Your task to perform on an android device: find photos in the google photos app Image 0: 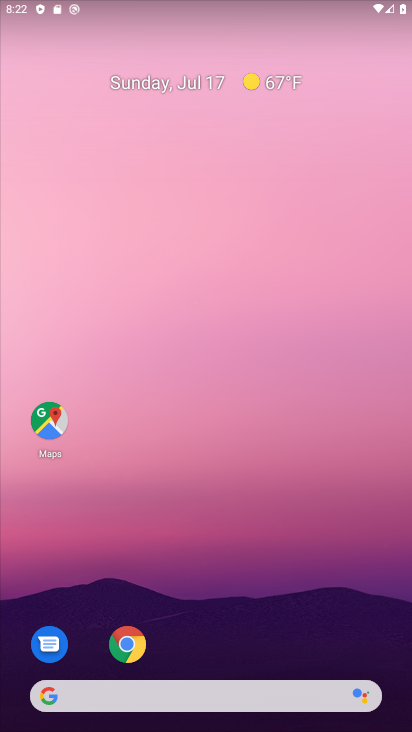
Step 0: drag from (256, 242) to (214, 51)
Your task to perform on an android device: find photos in the google photos app Image 1: 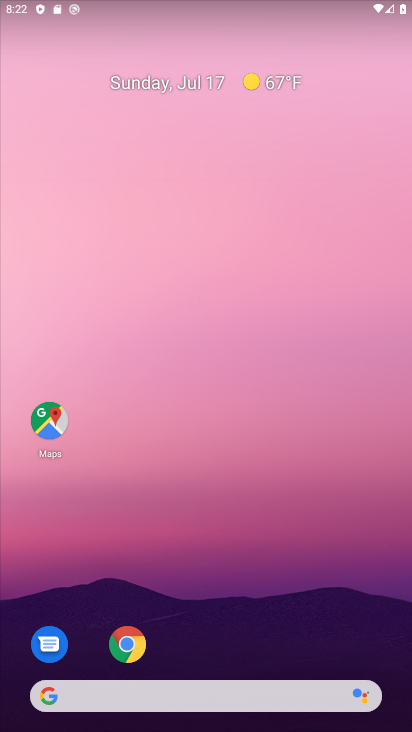
Step 1: drag from (229, 555) to (222, 107)
Your task to perform on an android device: find photos in the google photos app Image 2: 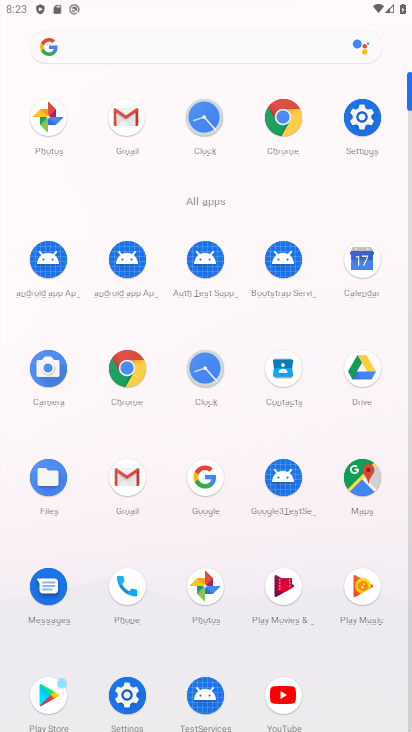
Step 2: click (48, 117)
Your task to perform on an android device: find photos in the google photos app Image 3: 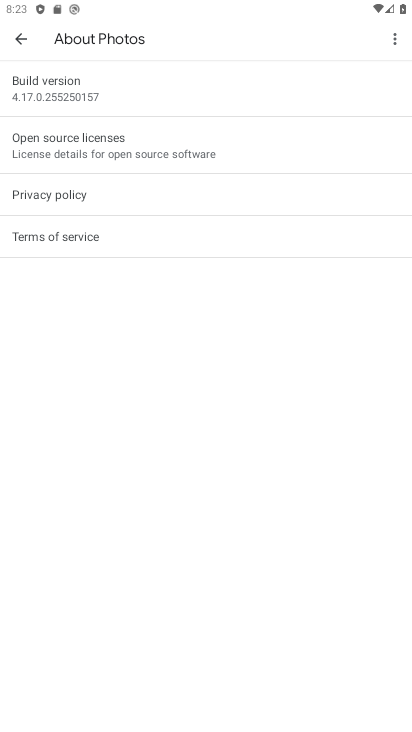
Step 3: click (18, 33)
Your task to perform on an android device: find photos in the google photos app Image 4: 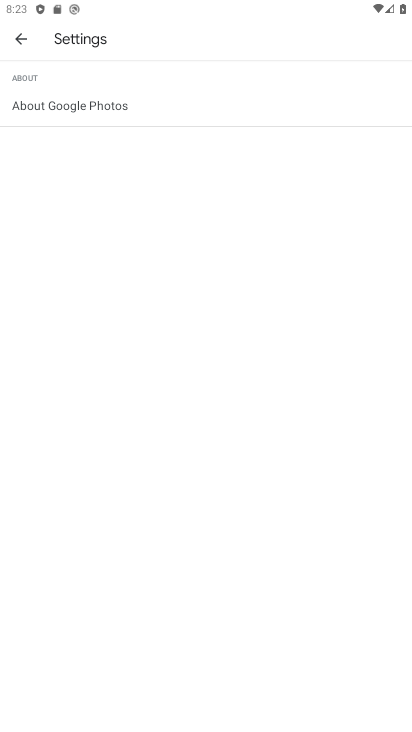
Step 4: click (11, 37)
Your task to perform on an android device: find photos in the google photos app Image 5: 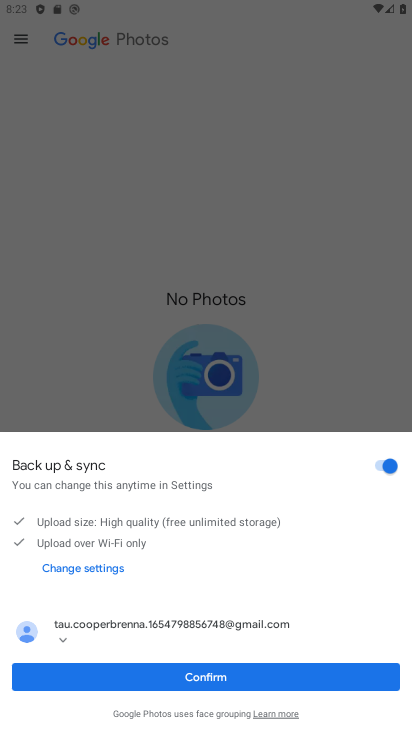
Step 5: click (203, 681)
Your task to perform on an android device: find photos in the google photos app Image 6: 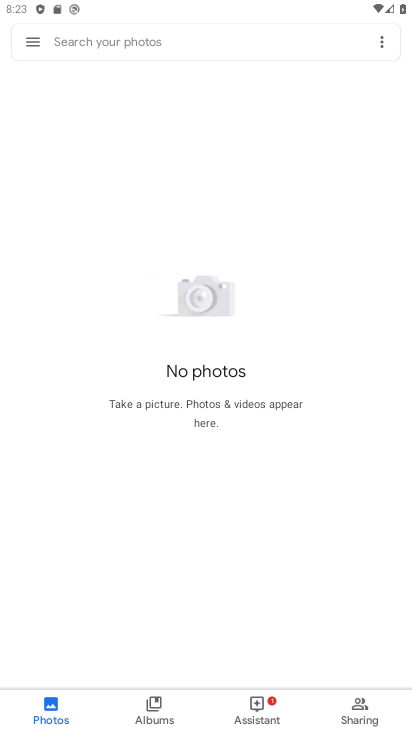
Step 6: click (113, 36)
Your task to perform on an android device: find photos in the google photos app Image 7: 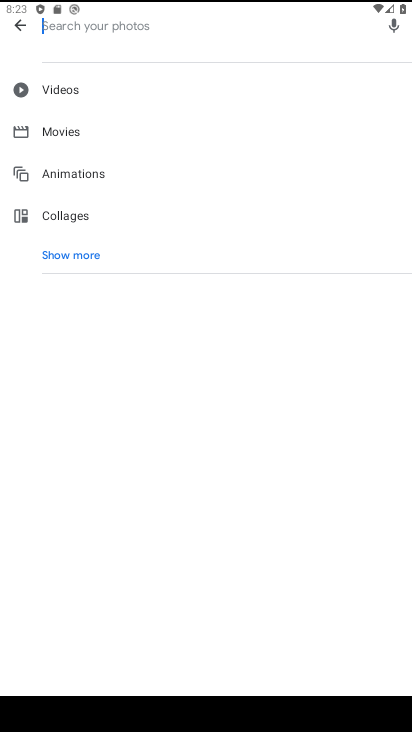
Step 7: task complete